Your task to perform on an android device: turn off smart reply in the gmail app Image 0: 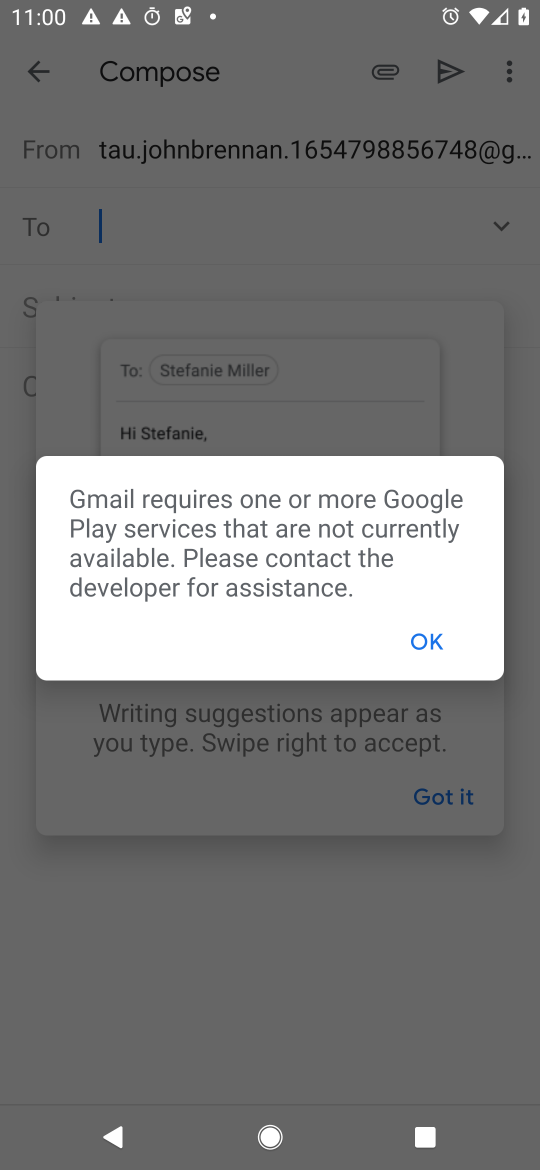
Step 0: press home button
Your task to perform on an android device: turn off smart reply in the gmail app Image 1: 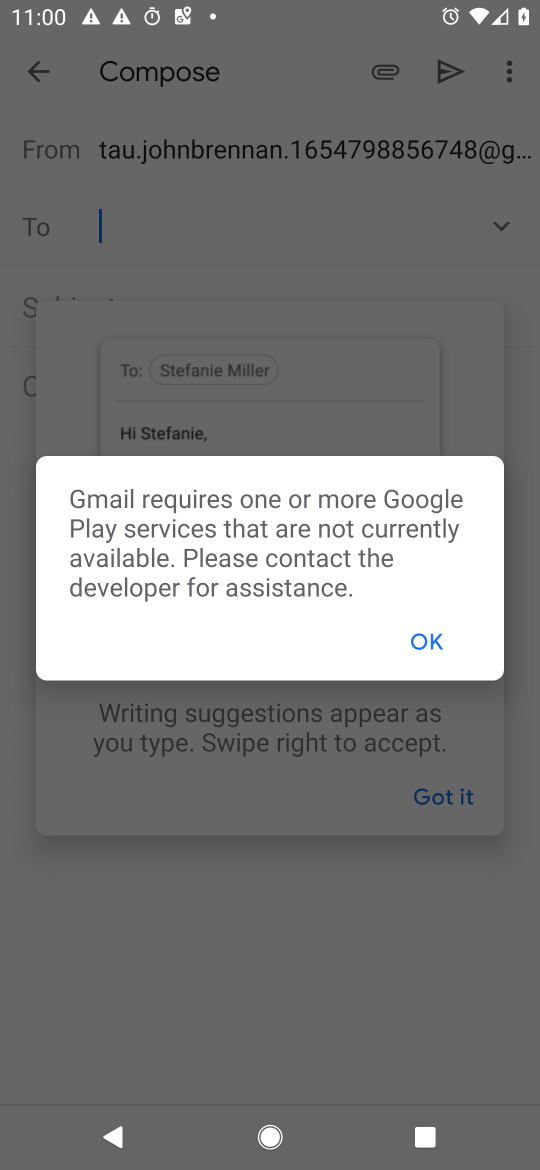
Step 1: click (340, 264)
Your task to perform on an android device: turn off smart reply in the gmail app Image 2: 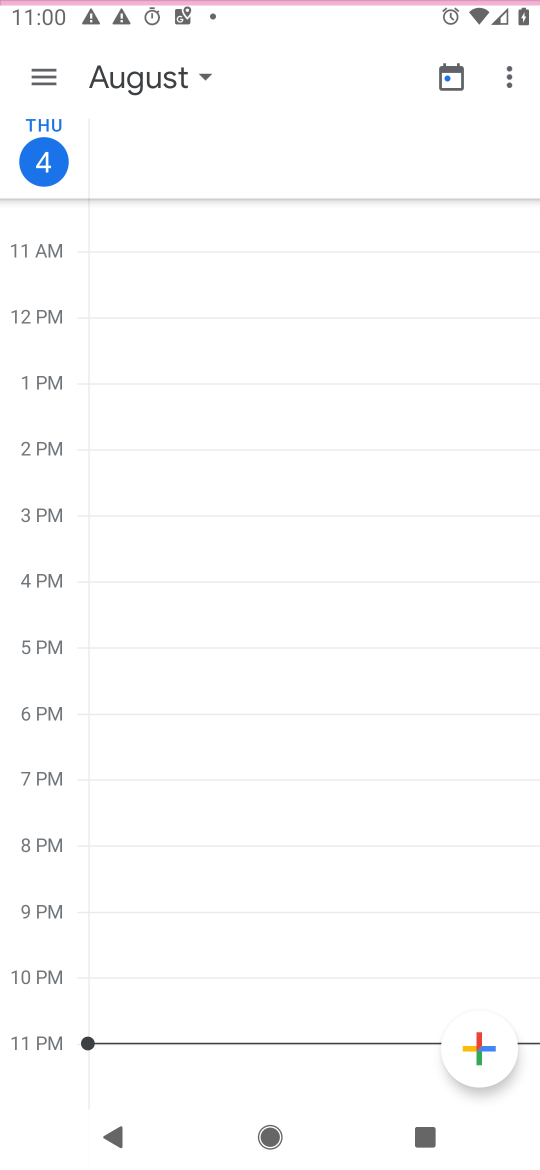
Step 2: press home button
Your task to perform on an android device: turn off smart reply in the gmail app Image 3: 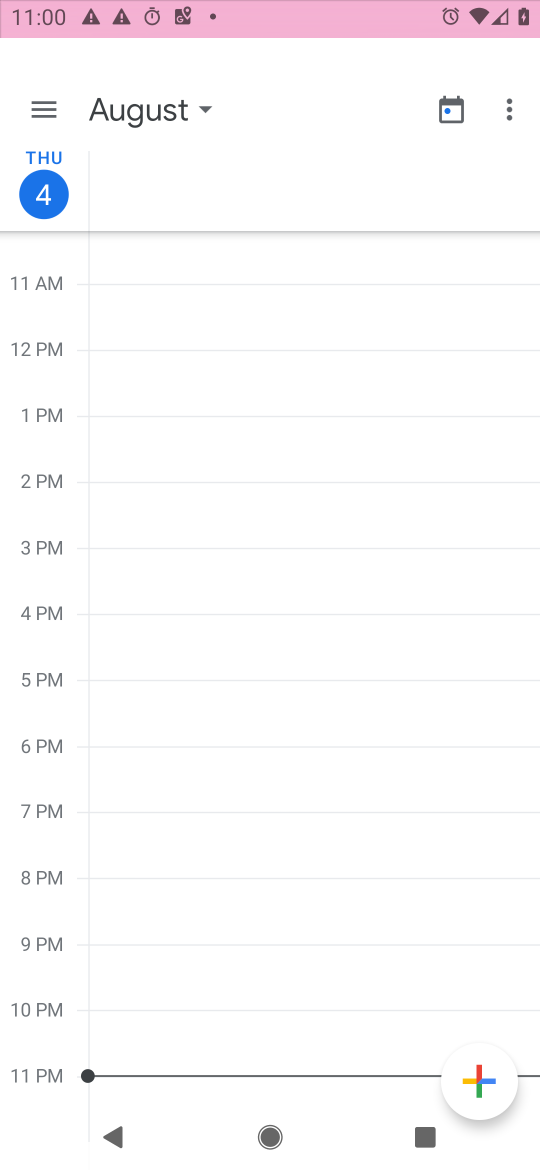
Step 3: click (436, 154)
Your task to perform on an android device: turn off smart reply in the gmail app Image 4: 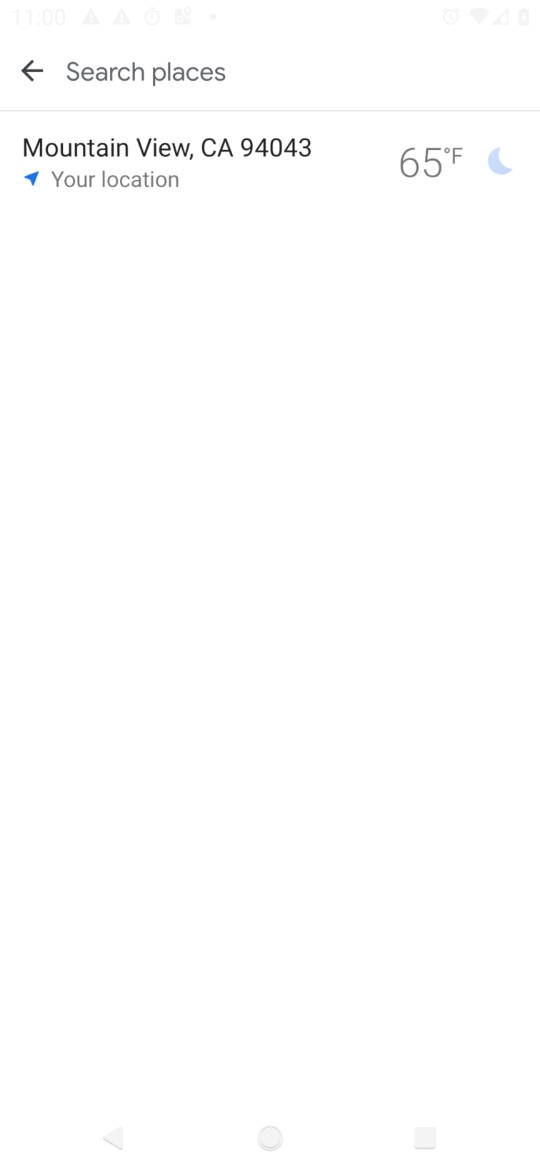
Step 4: drag from (246, 960) to (322, 189)
Your task to perform on an android device: turn off smart reply in the gmail app Image 5: 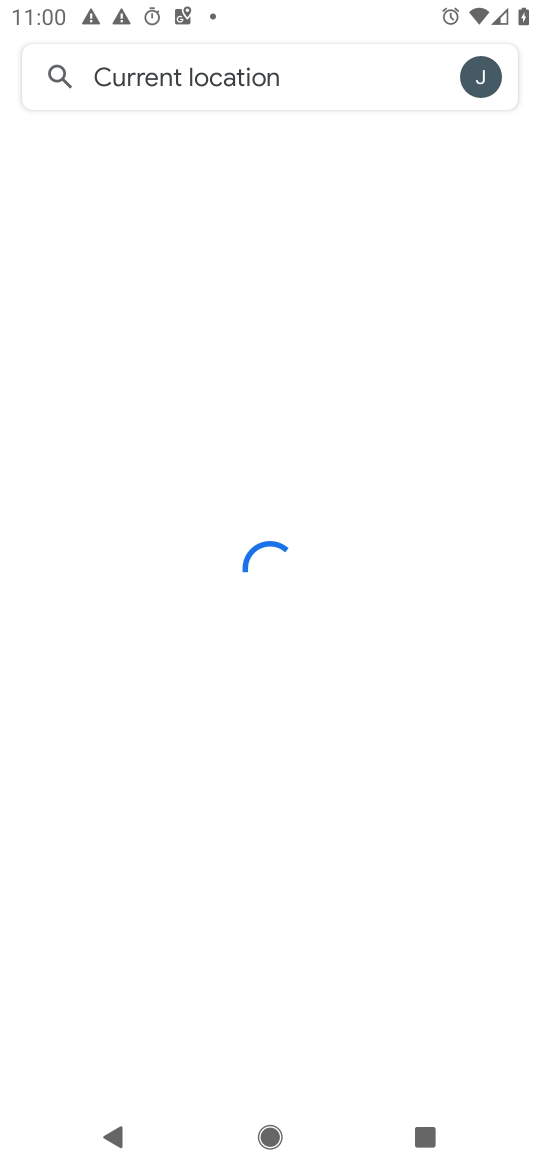
Step 5: press home button
Your task to perform on an android device: turn off smart reply in the gmail app Image 6: 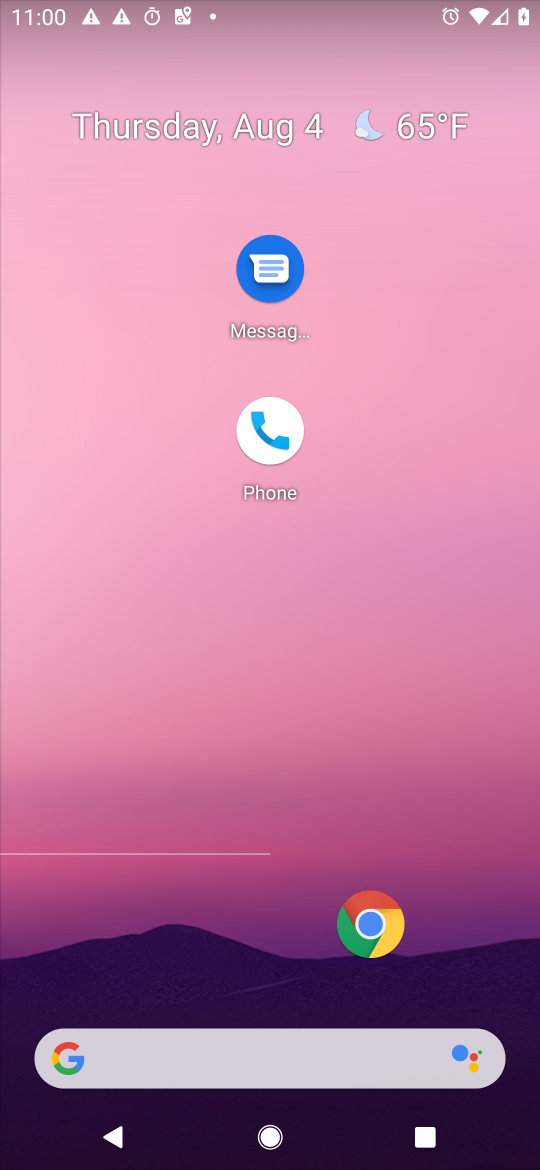
Step 6: drag from (287, 979) to (337, 280)
Your task to perform on an android device: turn off smart reply in the gmail app Image 7: 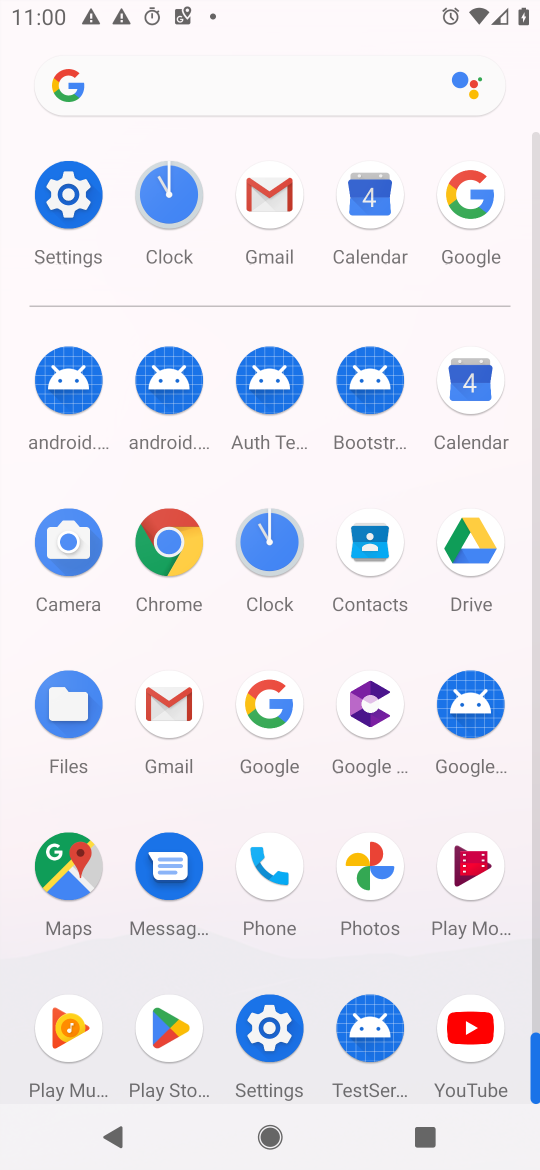
Step 7: click (170, 706)
Your task to perform on an android device: turn off smart reply in the gmail app Image 8: 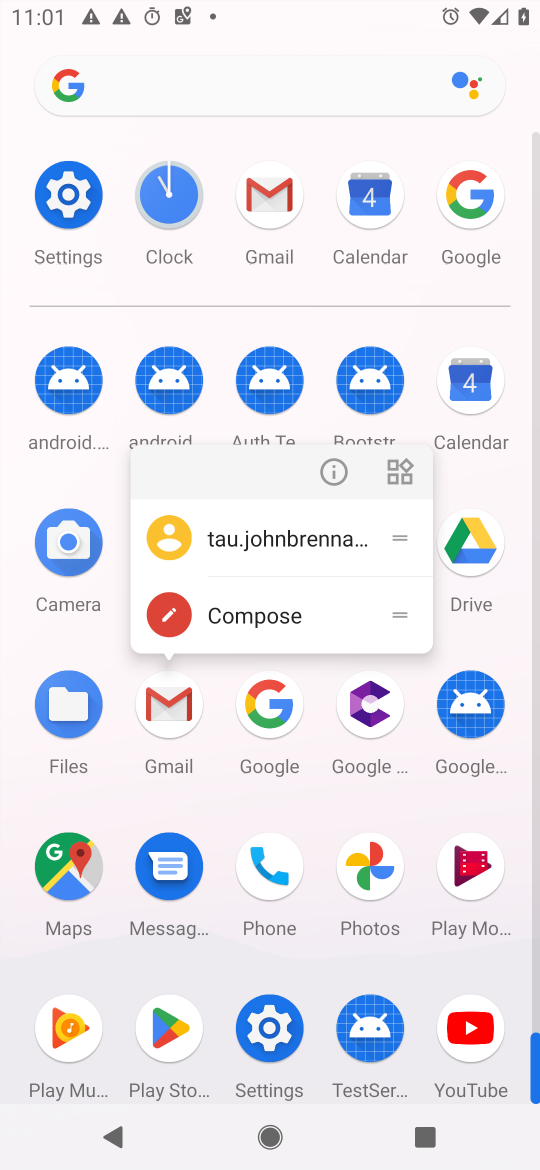
Step 8: click (333, 453)
Your task to perform on an android device: turn off smart reply in the gmail app Image 9: 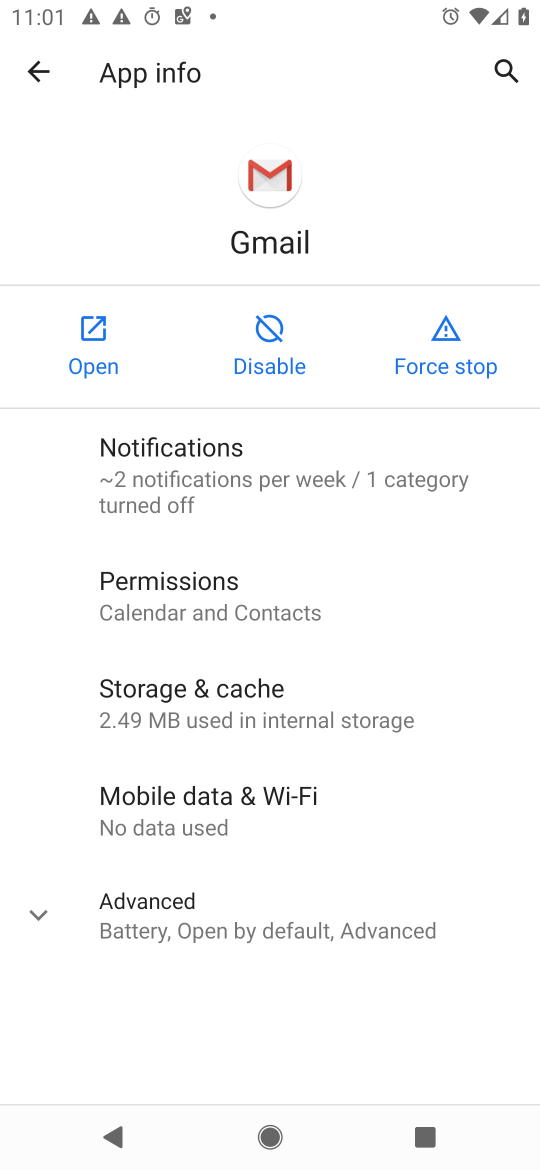
Step 9: click (77, 341)
Your task to perform on an android device: turn off smart reply in the gmail app Image 10: 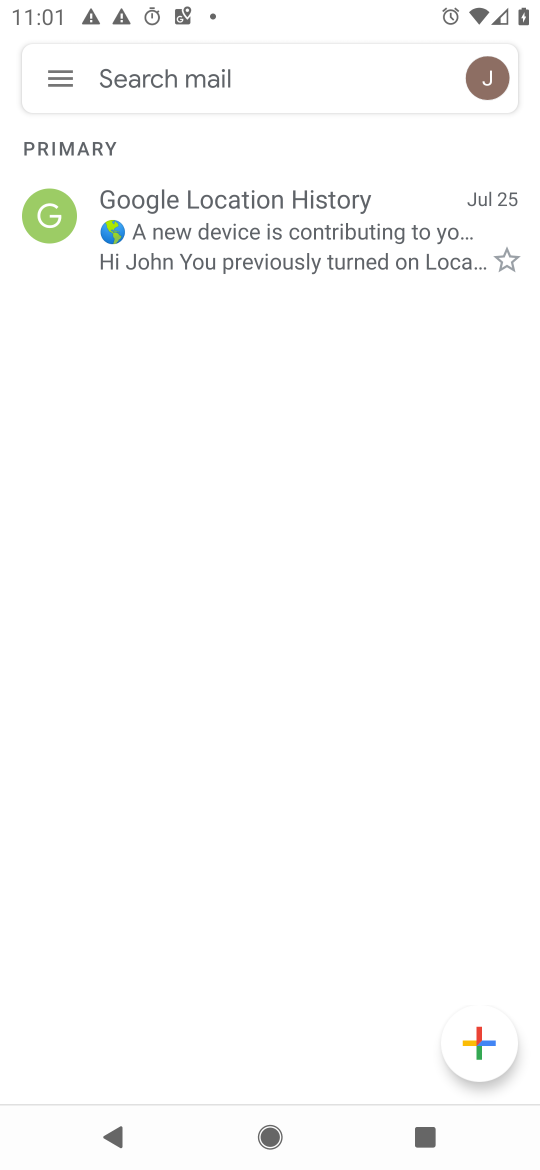
Step 10: click (71, 87)
Your task to perform on an android device: turn off smart reply in the gmail app Image 11: 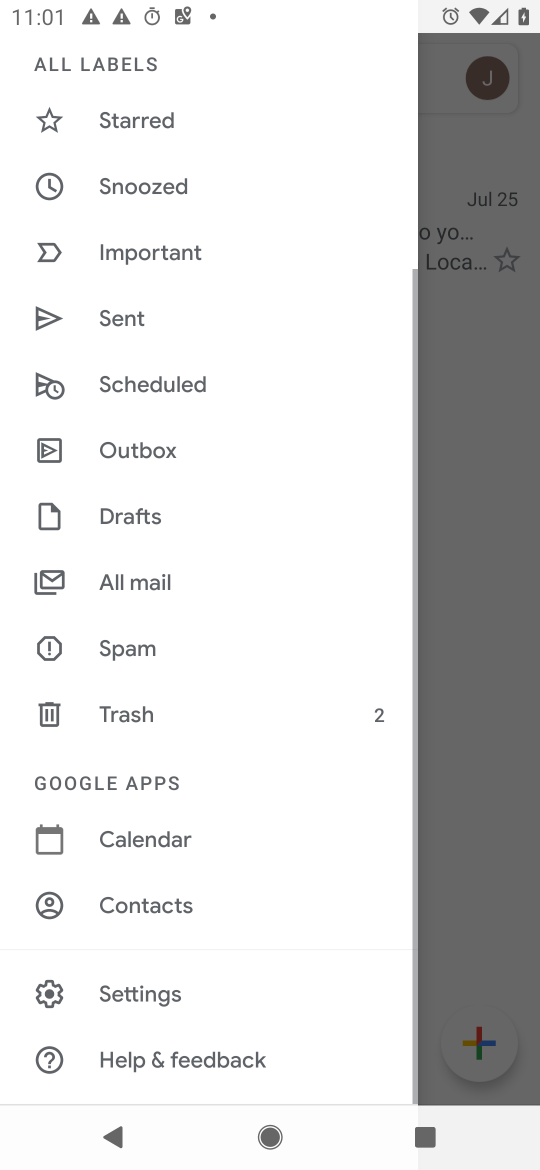
Step 11: click (162, 987)
Your task to perform on an android device: turn off smart reply in the gmail app Image 12: 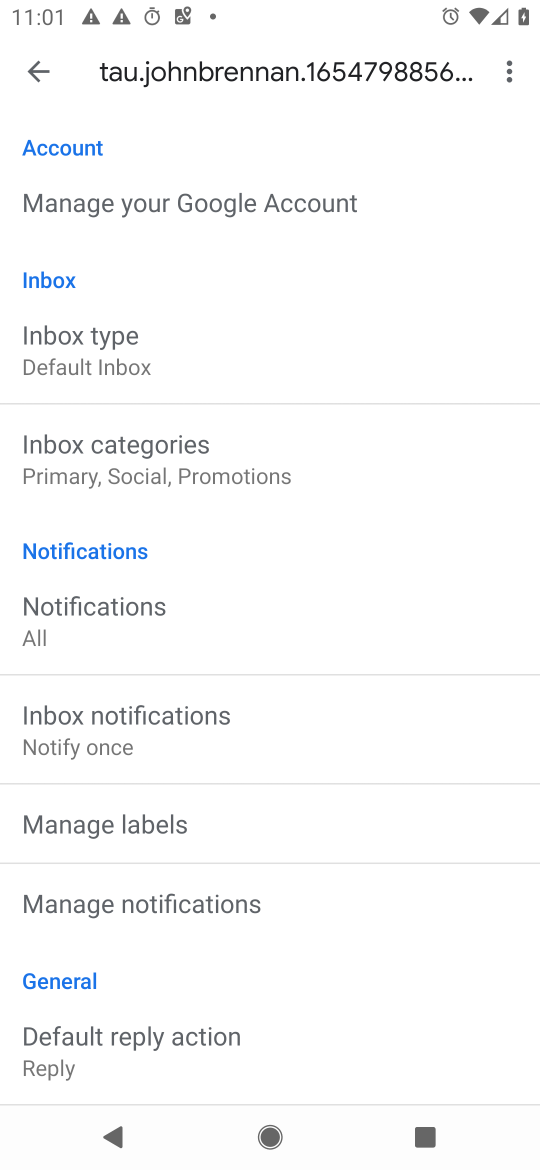
Step 12: drag from (208, 847) to (354, 172)
Your task to perform on an android device: turn off smart reply in the gmail app Image 13: 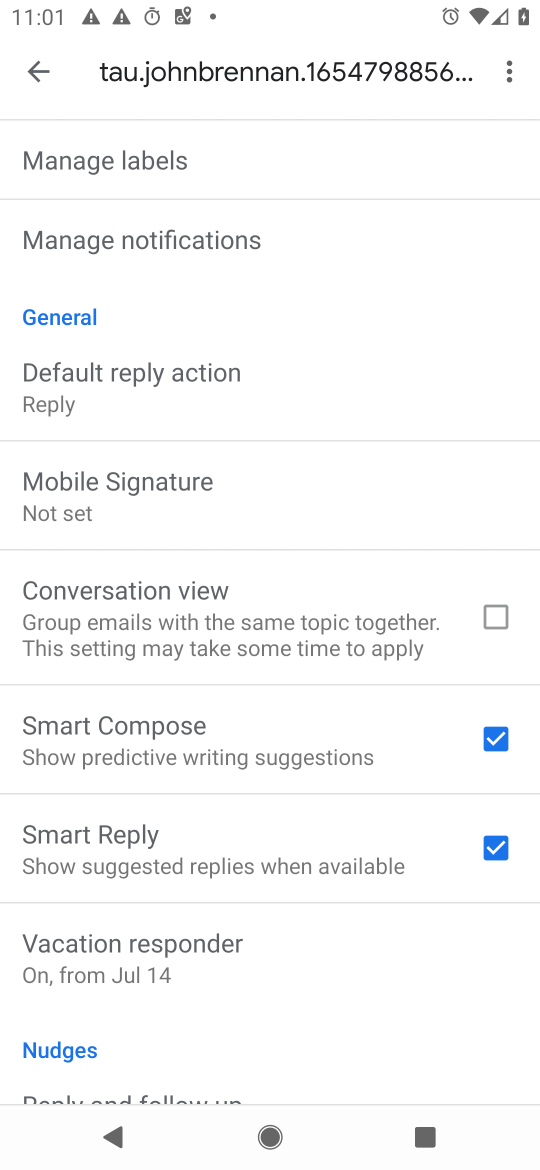
Step 13: click (496, 843)
Your task to perform on an android device: turn off smart reply in the gmail app Image 14: 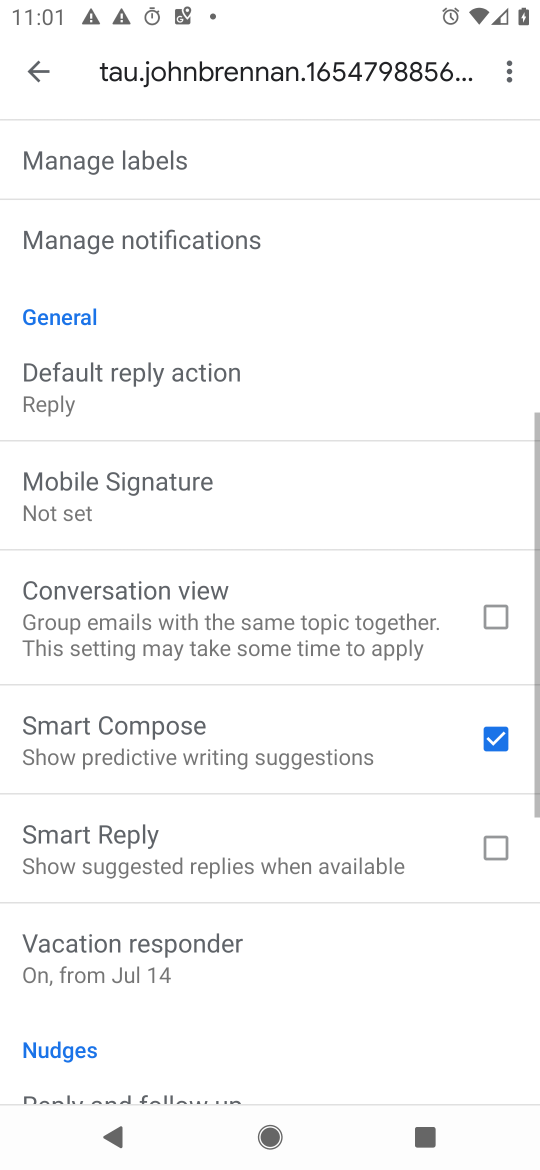
Step 14: task complete